Your task to perform on an android device: Go to Maps Image 0: 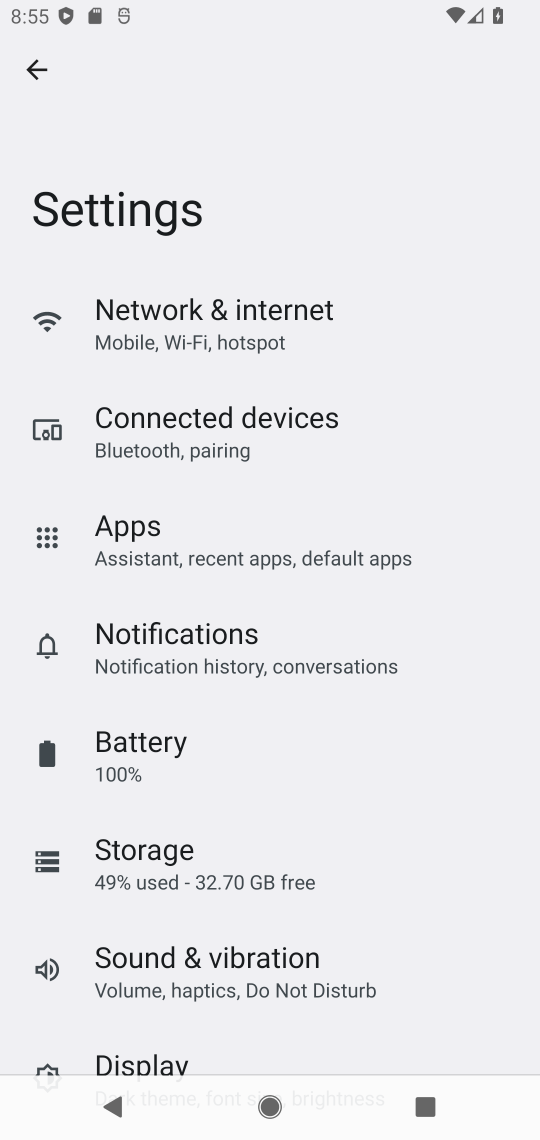
Step 0: press home button
Your task to perform on an android device: Go to Maps Image 1: 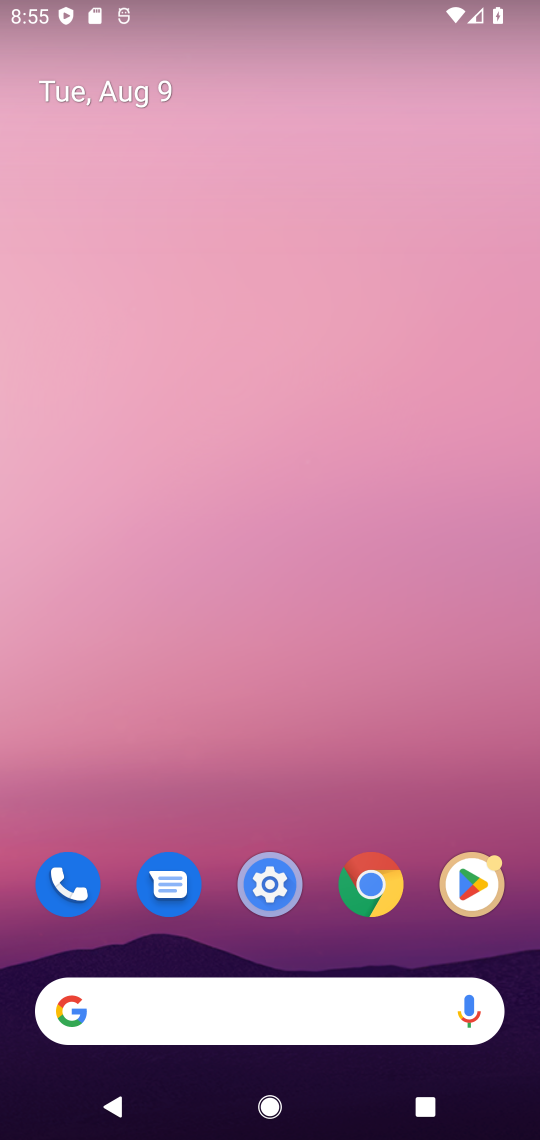
Step 1: drag from (271, 934) to (392, 283)
Your task to perform on an android device: Go to Maps Image 2: 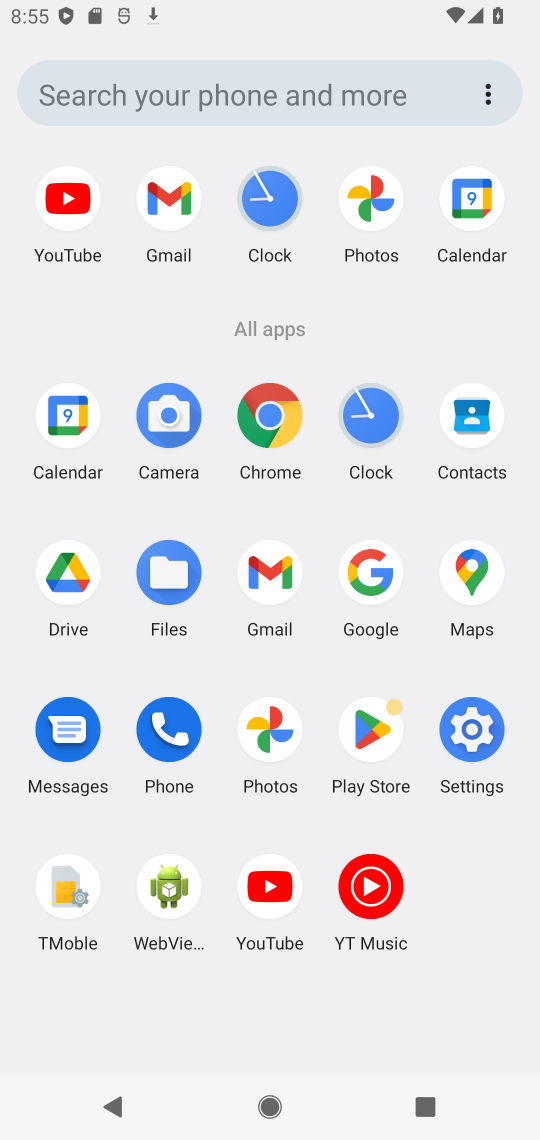
Step 2: click (461, 550)
Your task to perform on an android device: Go to Maps Image 3: 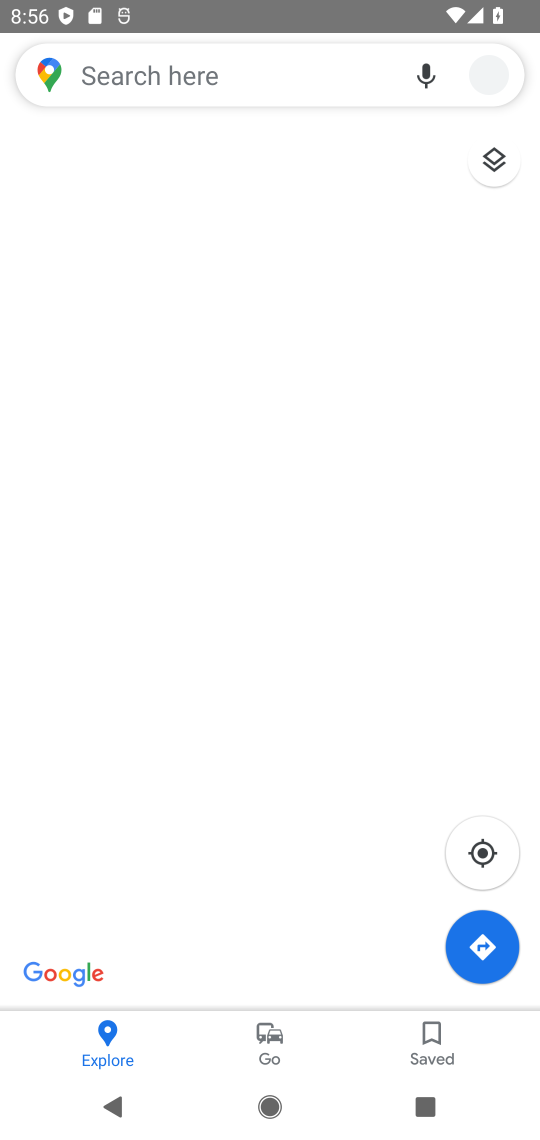
Step 3: task complete